Your task to perform on an android device: uninstall "LiveIn - Share Your Moment" Image 0: 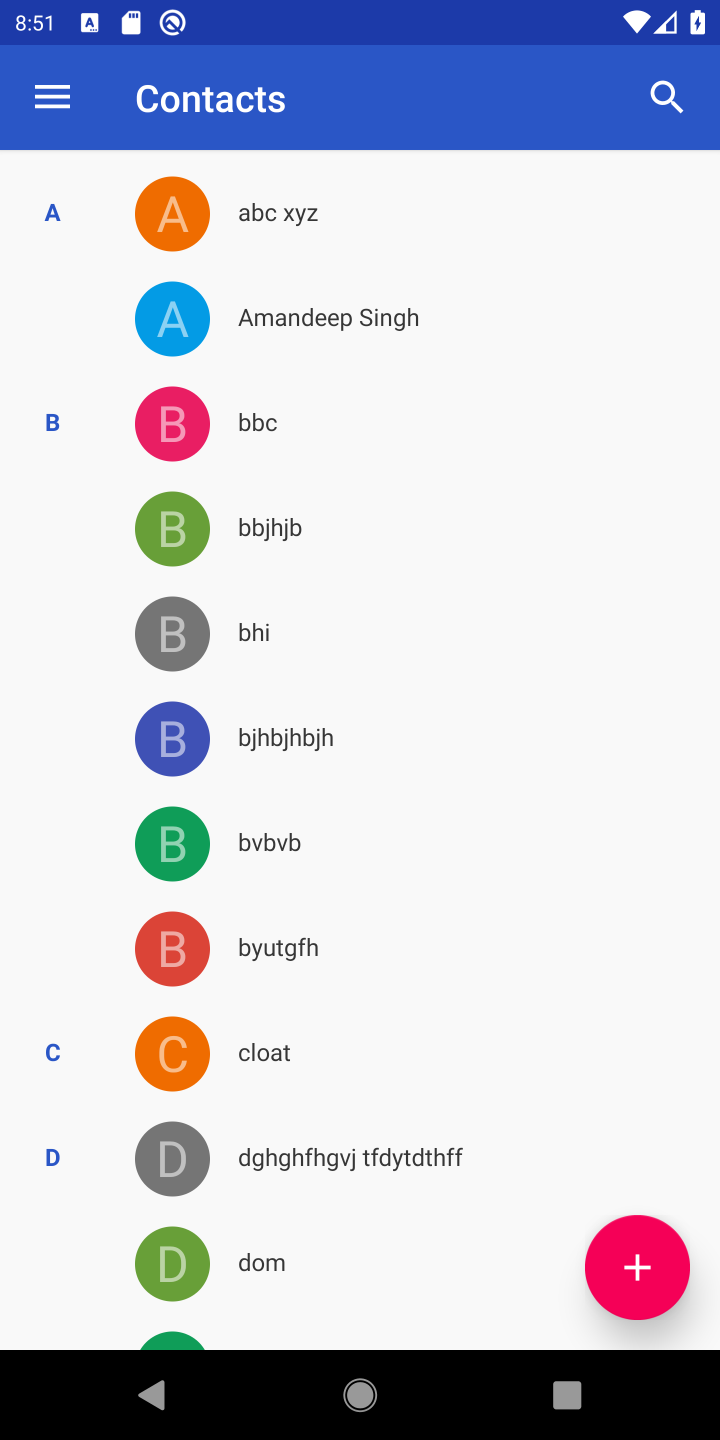
Step 0: press home button
Your task to perform on an android device: uninstall "LiveIn - Share Your Moment" Image 1: 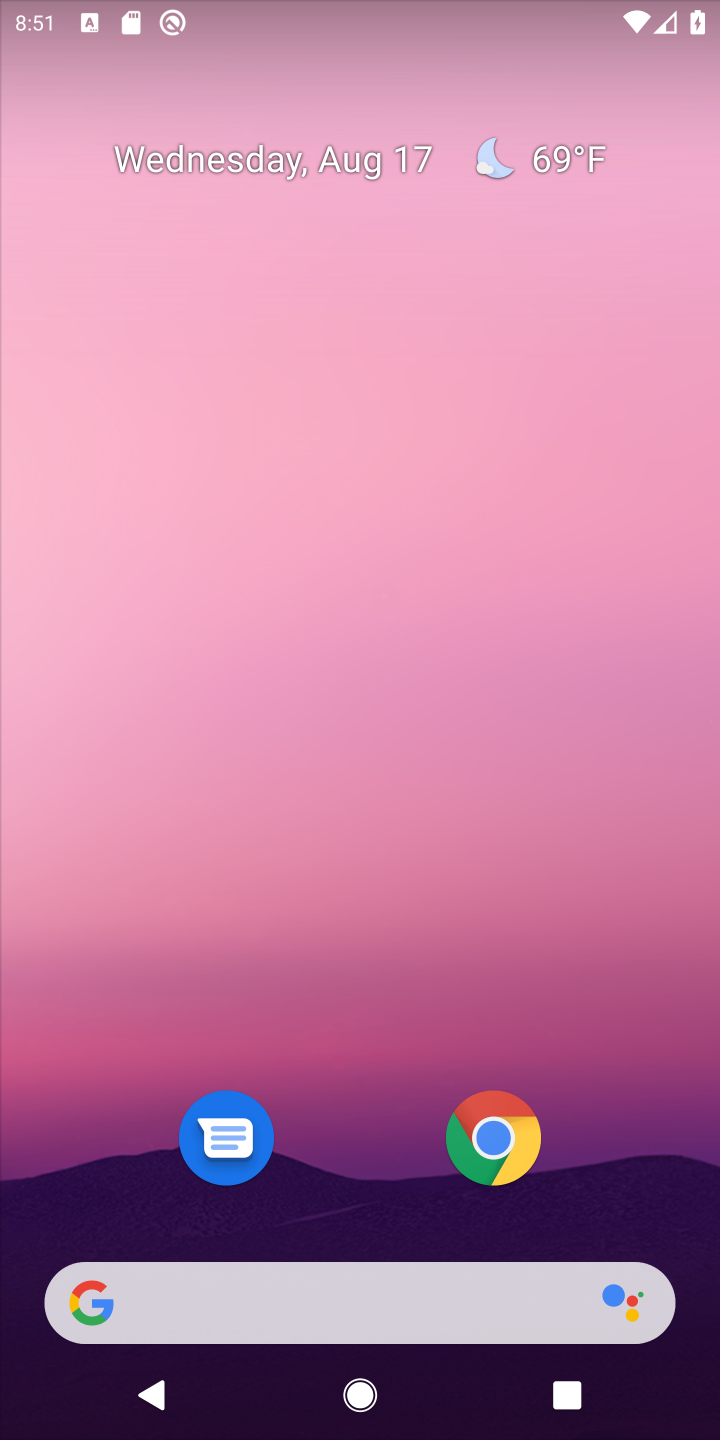
Step 1: drag from (344, 1035) to (364, 214)
Your task to perform on an android device: uninstall "LiveIn - Share Your Moment" Image 2: 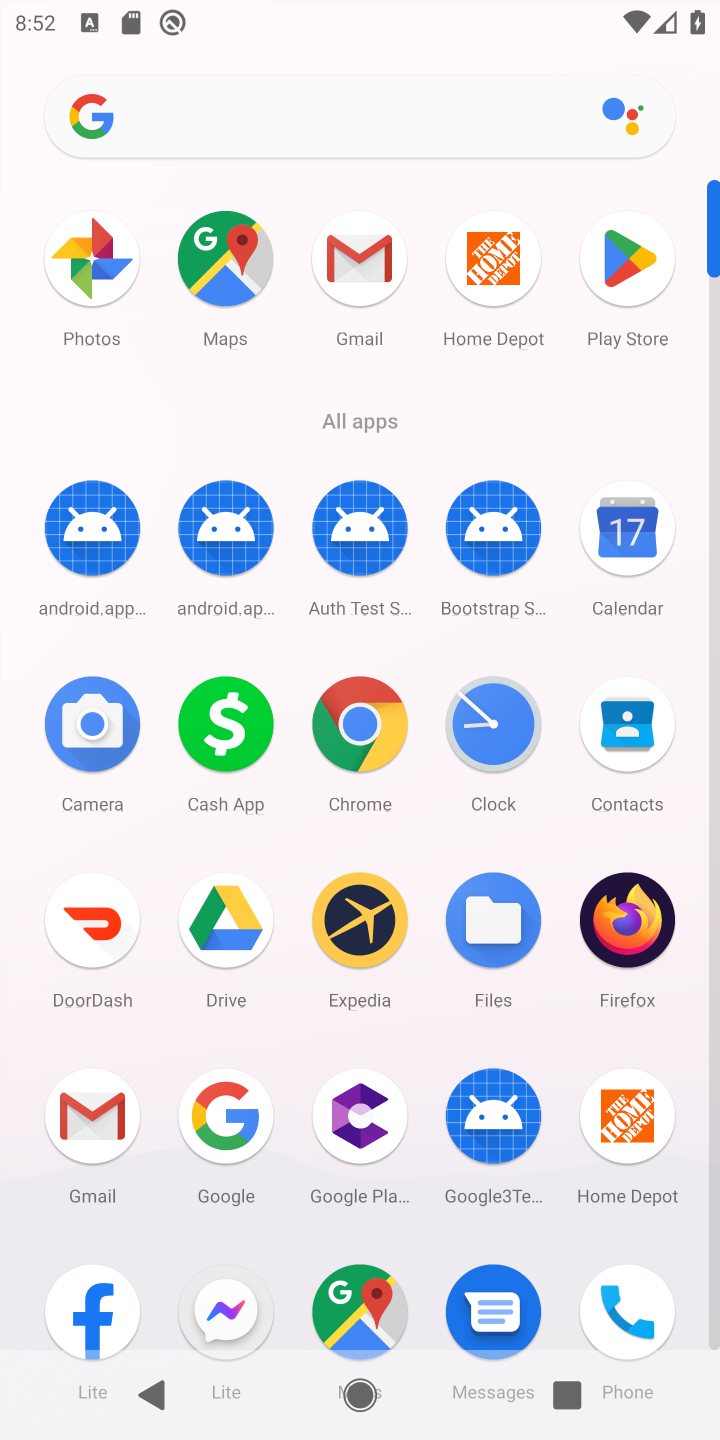
Step 2: click (642, 259)
Your task to perform on an android device: uninstall "LiveIn - Share Your Moment" Image 3: 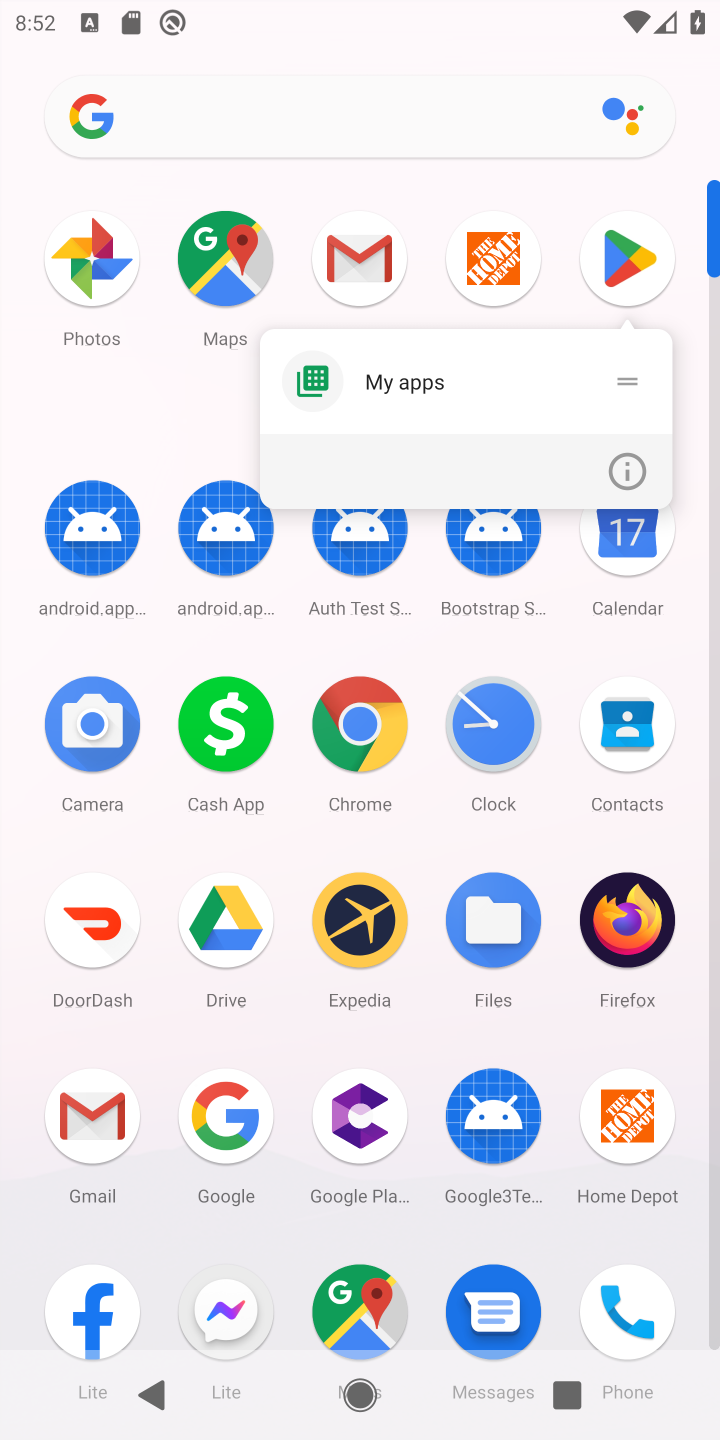
Step 3: click (642, 259)
Your task to perform on an android device: uninstall "LiveIn - Share Your Moment" Image 4: 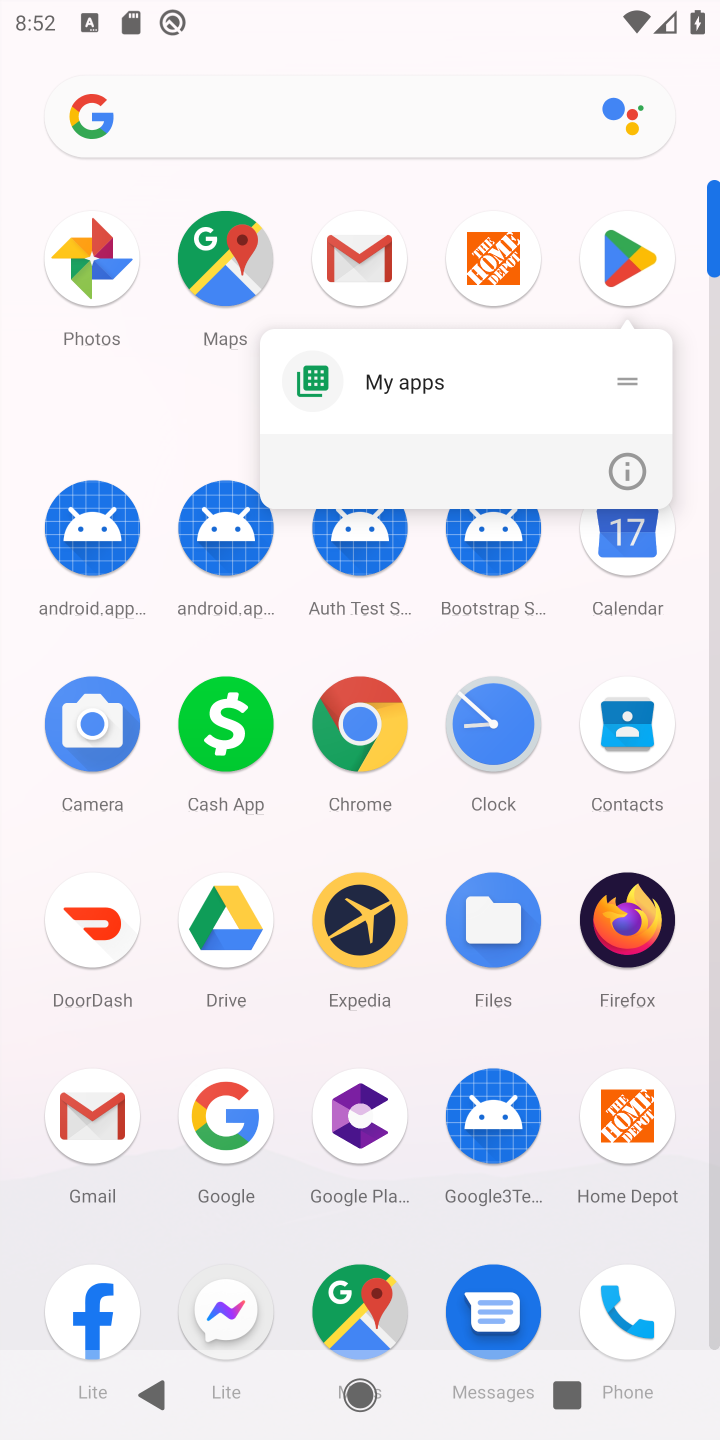
Step 4: click (627, 248)
Your task to perform on an android device: uninstall "LiveIn - Share Your Moment" Image 5: 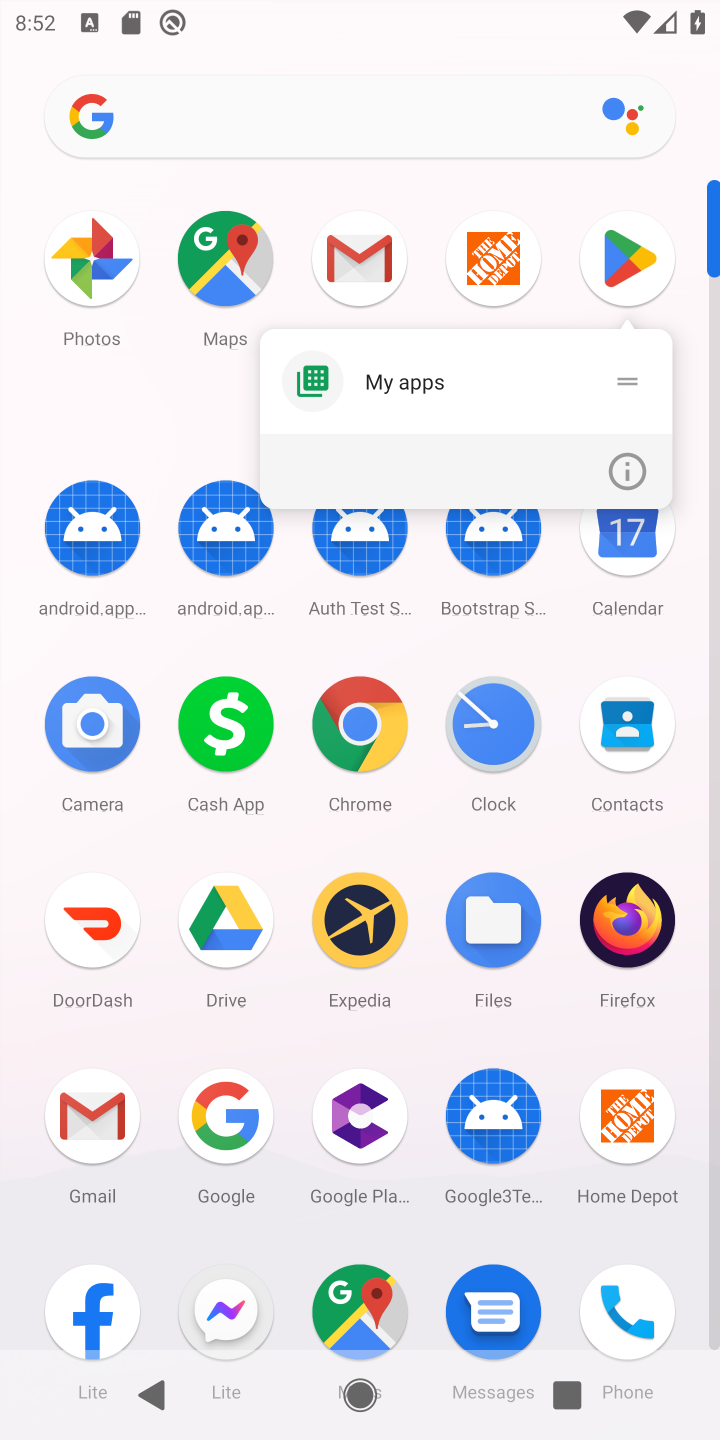
Step 5: click (635, 261)
Your task to perform on an android device: uninstall "LiveIn - Share Your Moment" Image 6: 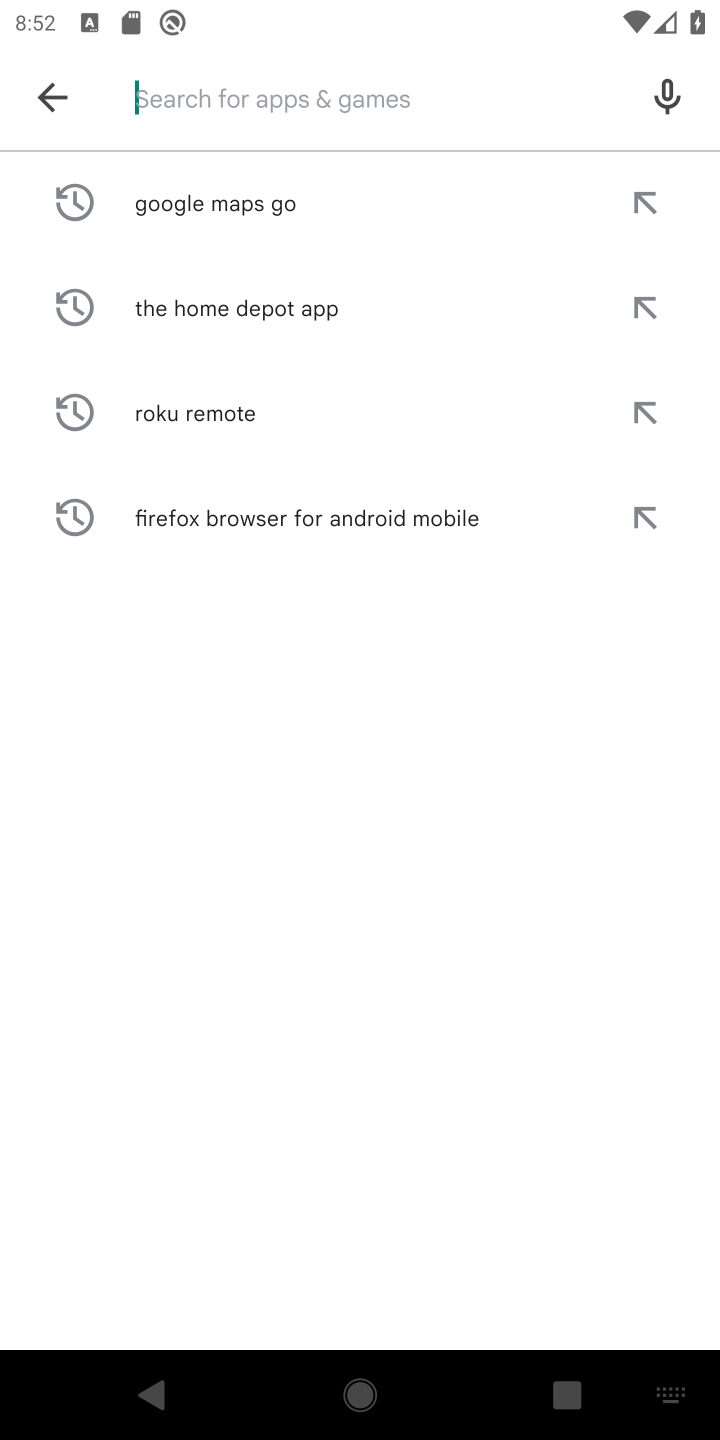
Step 6: click (610, 291)
Your task to perform on an android device: uninstall "LiveIn - Share Your Moment" Image 7: 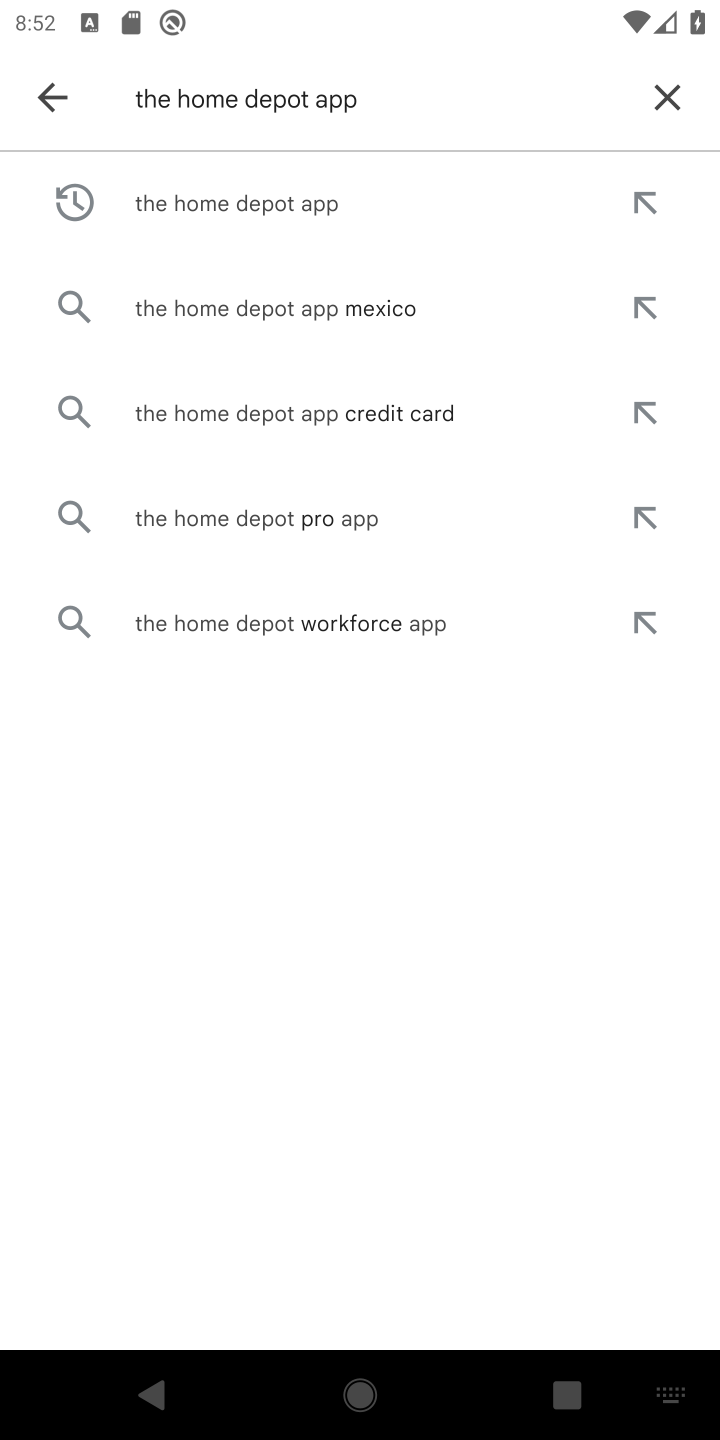
Step 7: click (685, 89)
Your task to perform on an android device: uninstall "LiveIn - Share Your Moment" Image 8: 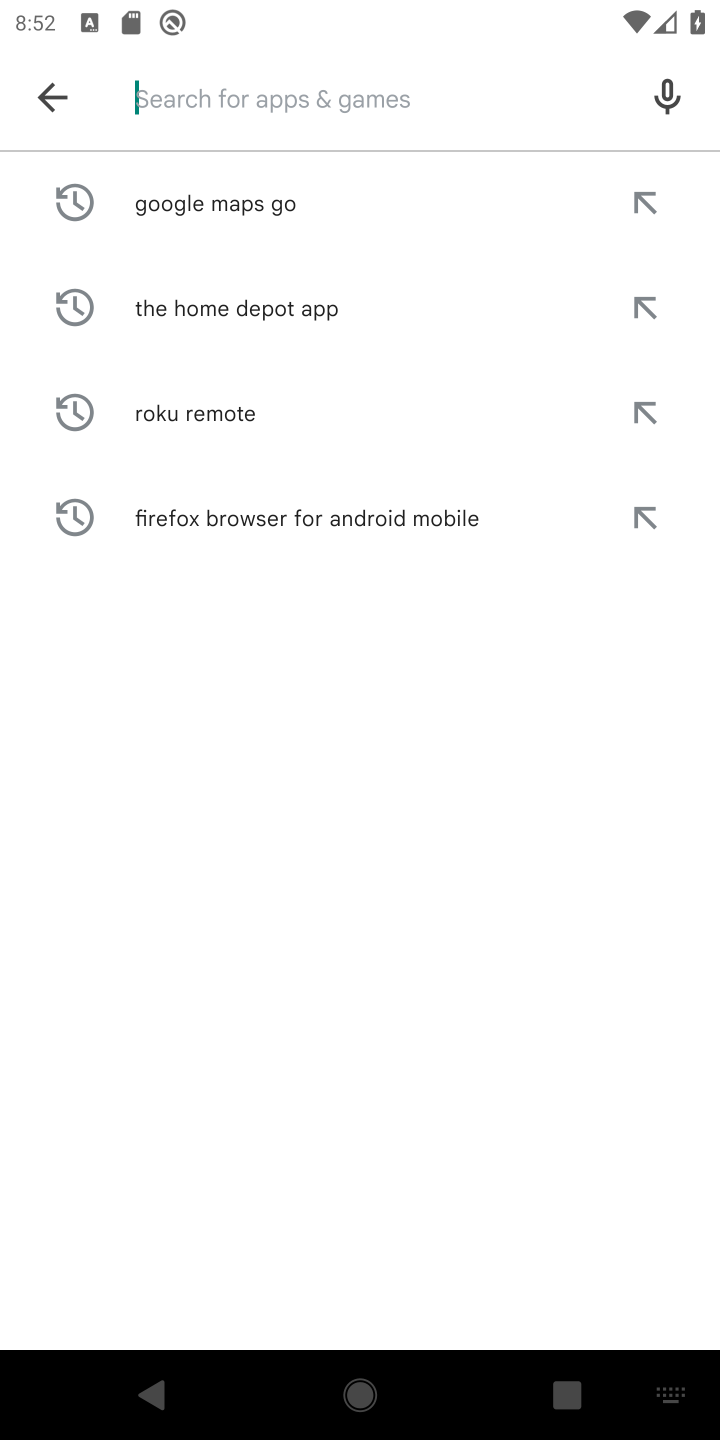
Step 8: click (386, 97)
Your task to perform on an android device: uninstall "LiveIn - Share Your Moment" Image 9: 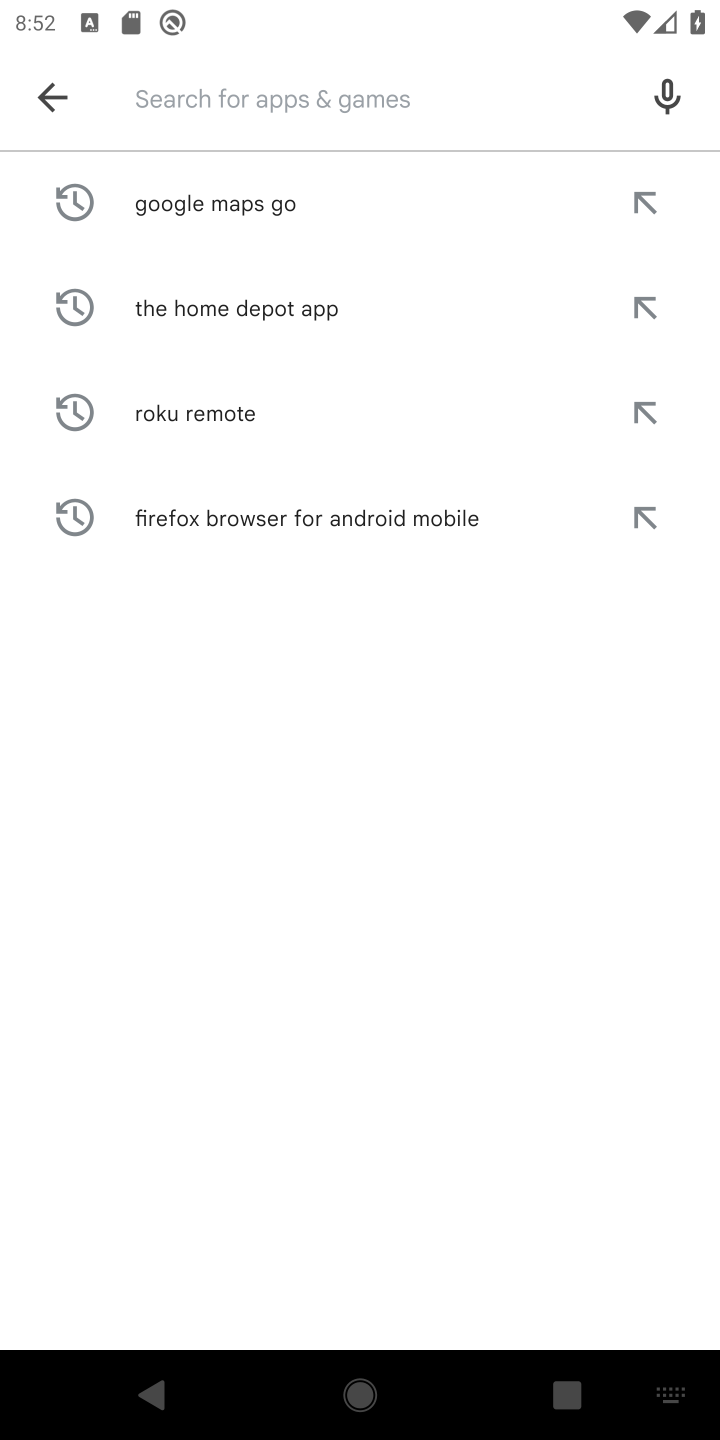
Step 9: type "LiveIn - Share Your Moment "
Your task to perform on an android device: uninstall "LiveIn - Share Your Moment" Image 10: 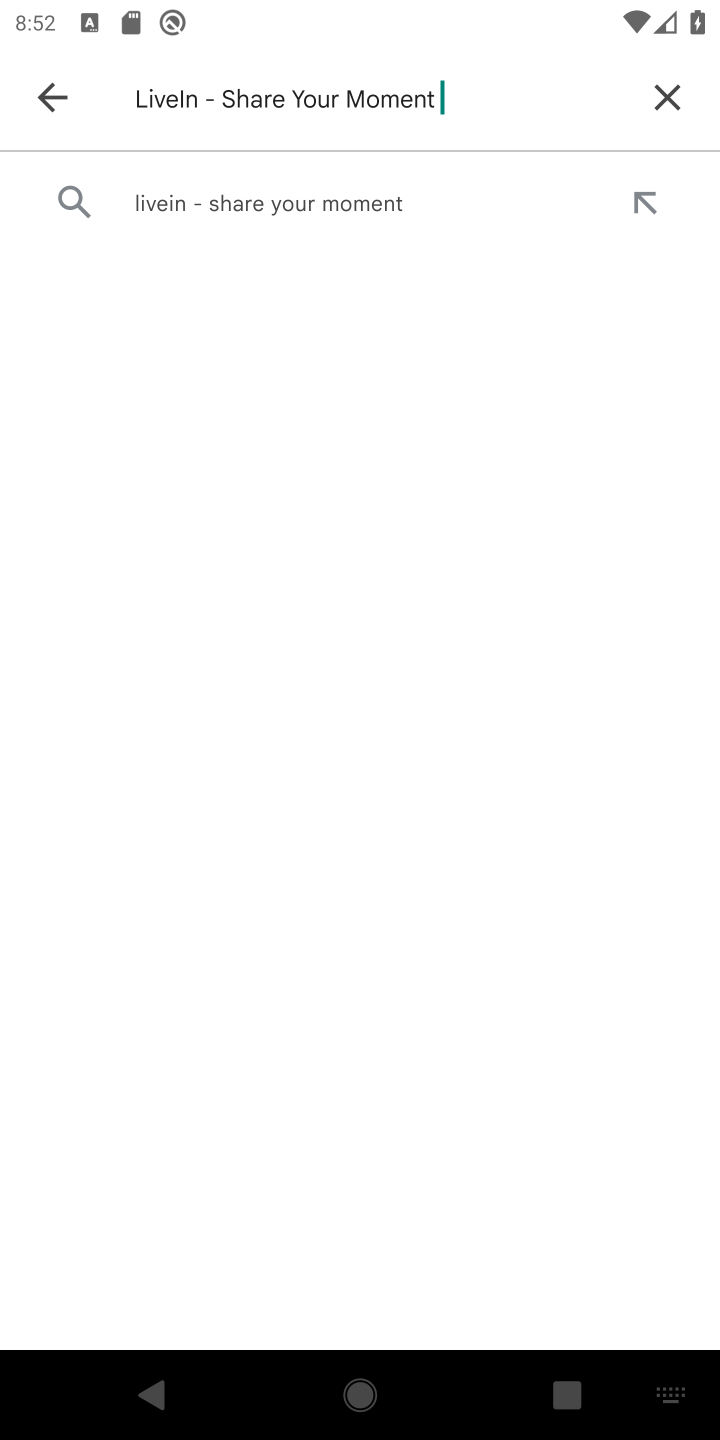
Step 10: click (288, 200)
Your task to perform on an android device: uninstall "LiveIn - Share Your Moment" Image 11: 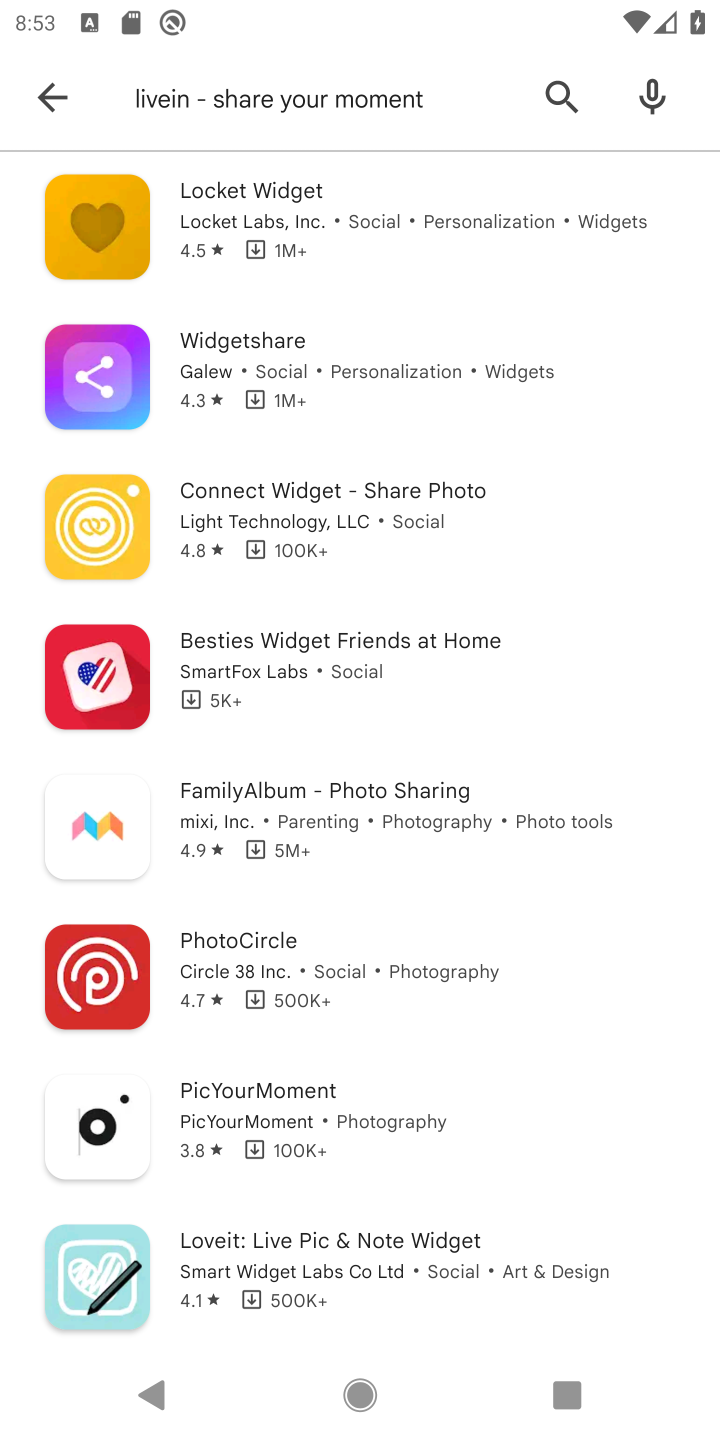
Step 11: task complete